Your task to perform on an android device: Go to Android settings Image 0: 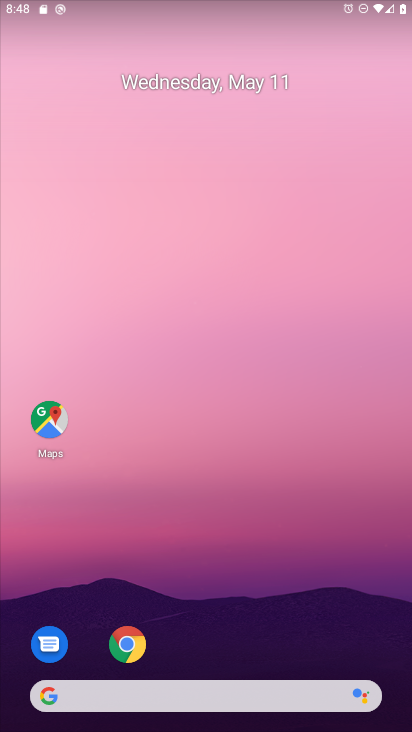
Step 0: drag from (271, 595) to (245, 23)
Your task to perform on an android device: Go to Android settings Image 1: 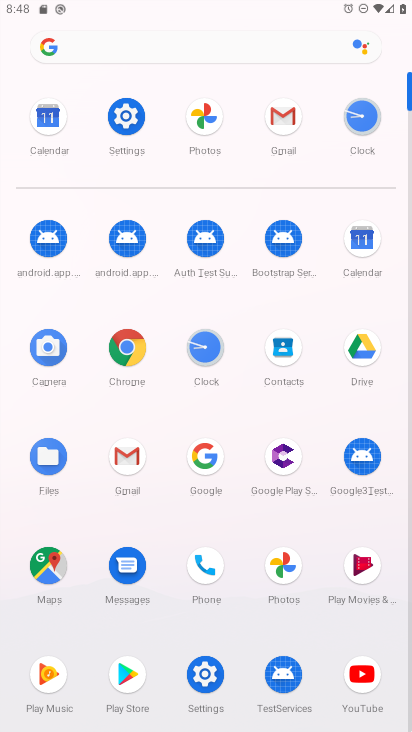
Step 1: click (123, 118)
Your task to perform on an android device: Go to Android settings Image 2: 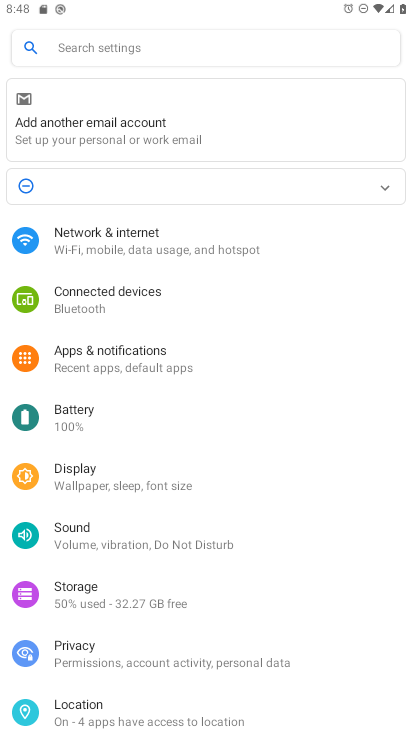
Step 2: task complete